Your task to perform on an android device: Open Youtube and go to "Your channel" Image 0: 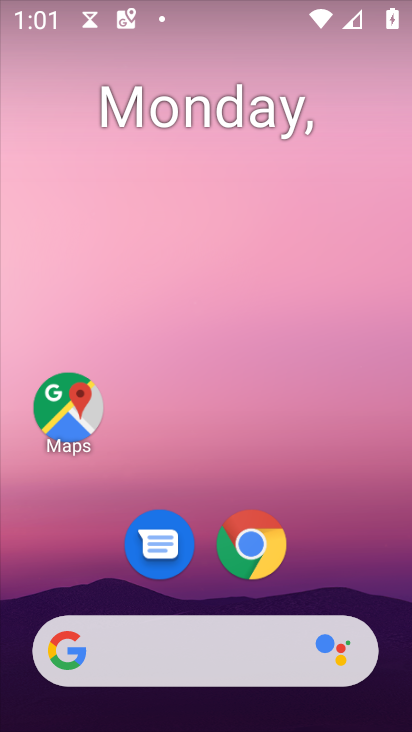
Step 0: drag from (327, 548) to (304, 274)
Your task to perform on an android device: Open Youtube and go to "Your channel" Image 1: 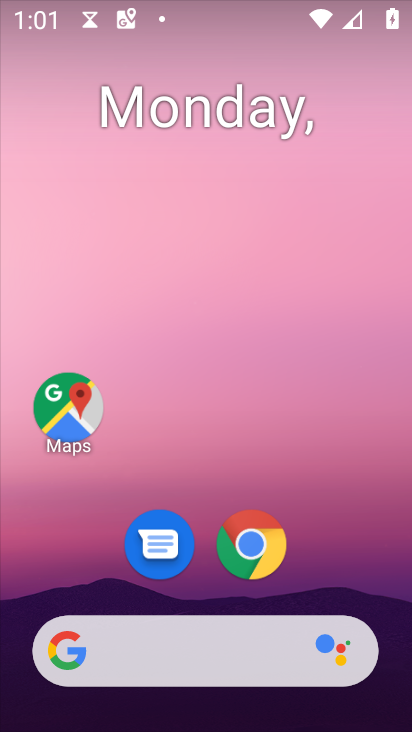
Step 1: drag from (328, 404) to (324, 240)
Your task to perform on an android device: Open Youtube and go to "Your channel" Image 2: 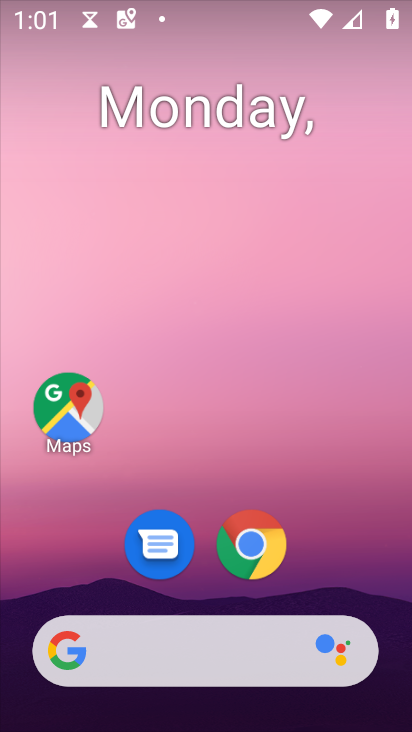
Step 2: drag from (346, 594) to (345, 190)
Your task to perform on an android device: Open Youtube and go to "Your channel" Image 3: 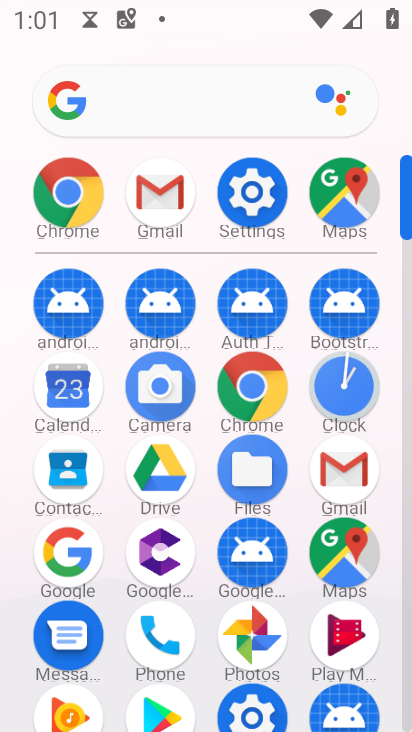
Step 3: drag from (287, 607) to (320, 294)
Your task to perform on an android device: Open Youtube and go to "Your channel" Image 4: 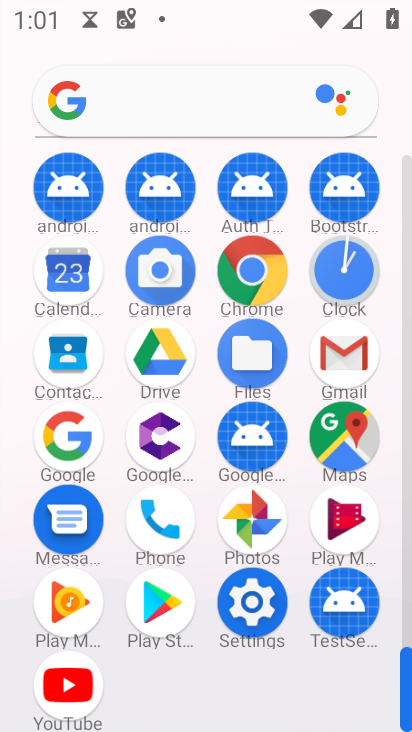
Step 4: click (66, 693)
Your task to perform on an android device: Open Youtube and go to "Your channel" Image 5: 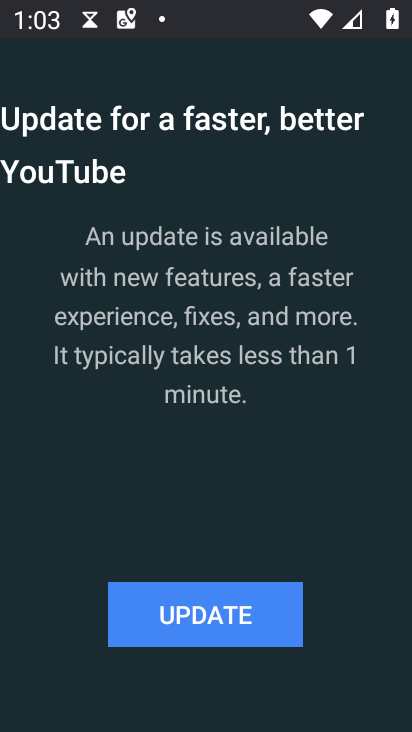
Step 5: task complete